Your task to perform on an android device: check android version Image 0: 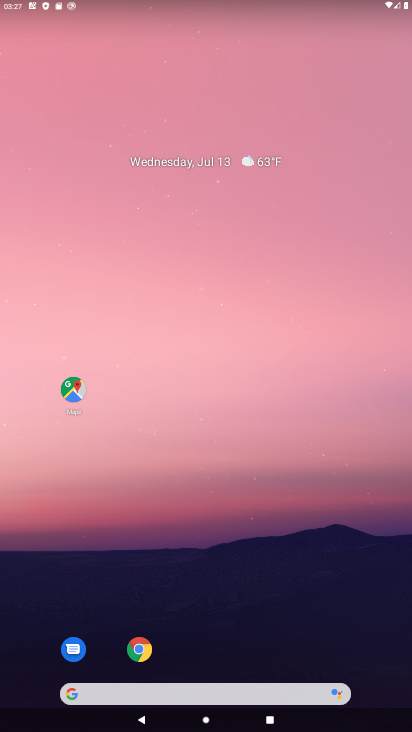
Step 0: drag from (260, 582) to (282, 82)
Your task to perform on an android device: check android version Image 1: 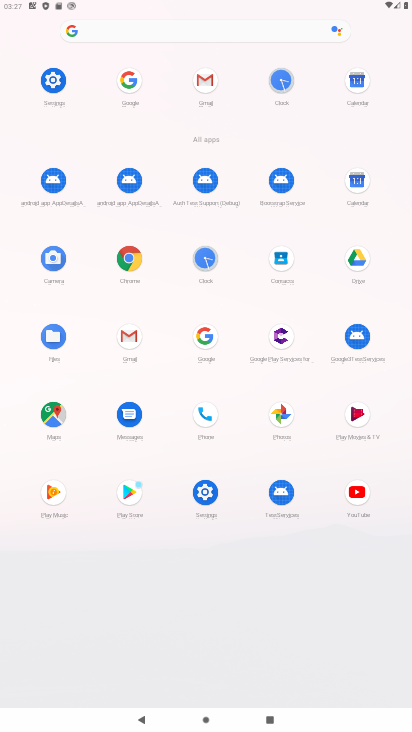
Step 1: click (51, 75)
Your task to perform on an android device: check android version Image 2: 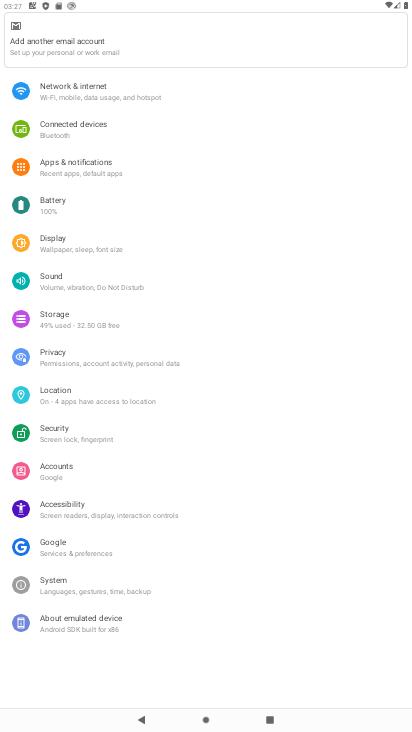
Step 2: drag from (116, 277) to (183, 2)
Your task to perform on an android device: check android version Image 3: 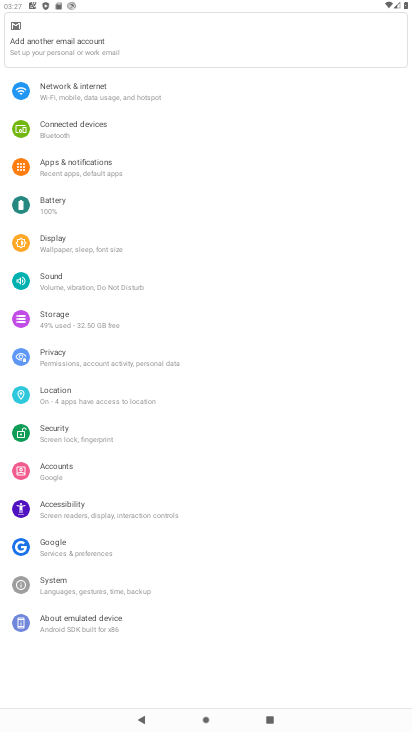
Step 3: click (74, 611)
Your task to perform on an android device: check android version Image 4: 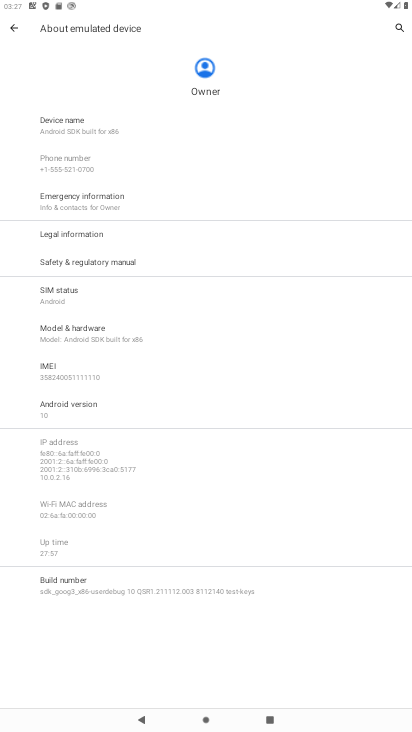
Step 4: click (111, 402)
Your task to perform on an android device: check android version Image 5: 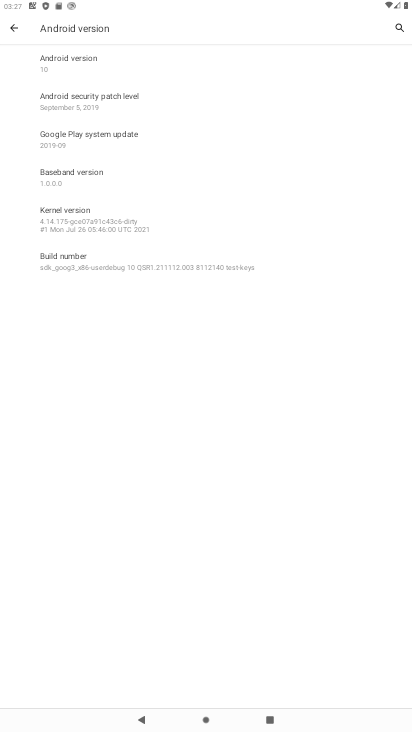
Step 5: click (134, 69)
Your task to perform on an android device: check android version Image 6: 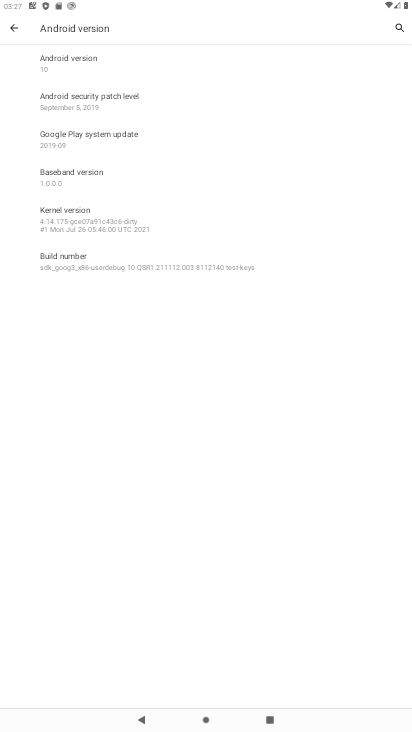
Step 6: task complete